Your task to perform on an android device: Open eBay Image 0: 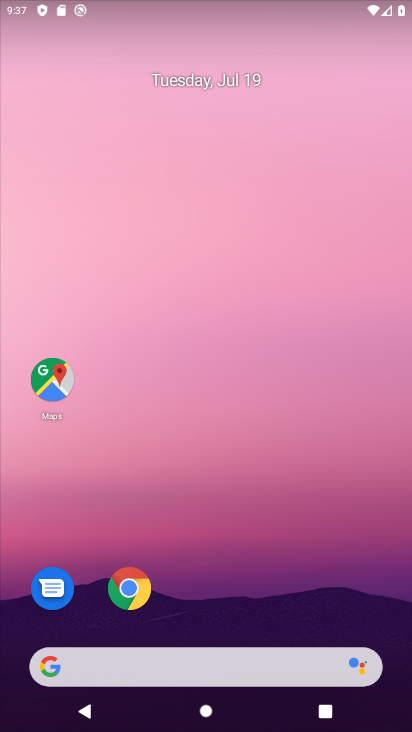
Step 0: drag from (213, 212) to (256, 65)
Your task to perform on an android device: Open eBay Image 1: 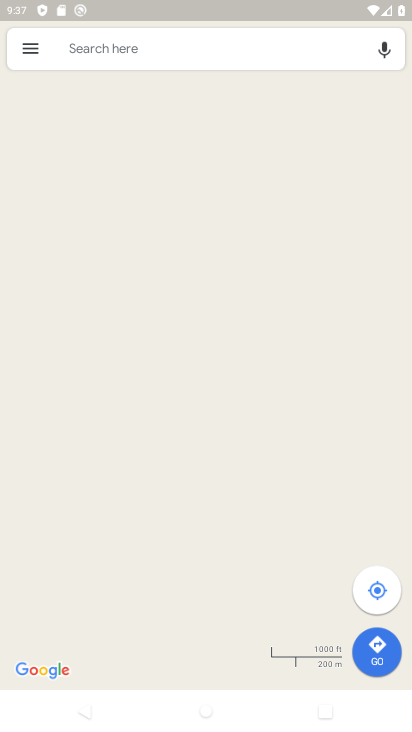
Step 1: press back button
Your task to perform on an android device: Open eBay Image 2: 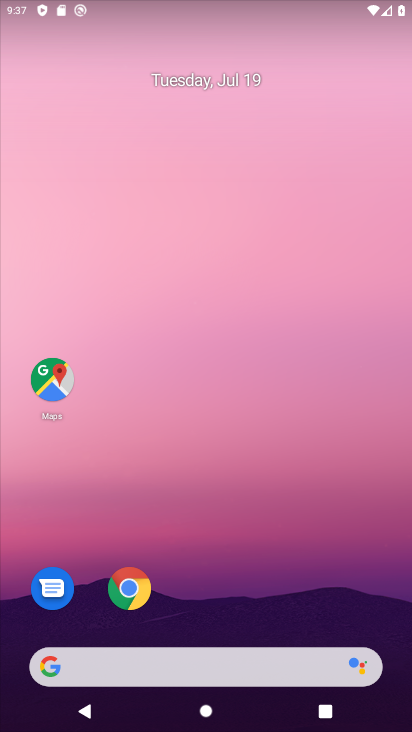
Step 2: drag from (231, 687) to (220, 331)
Your task to perform on an android device: Open eBay Image 3: 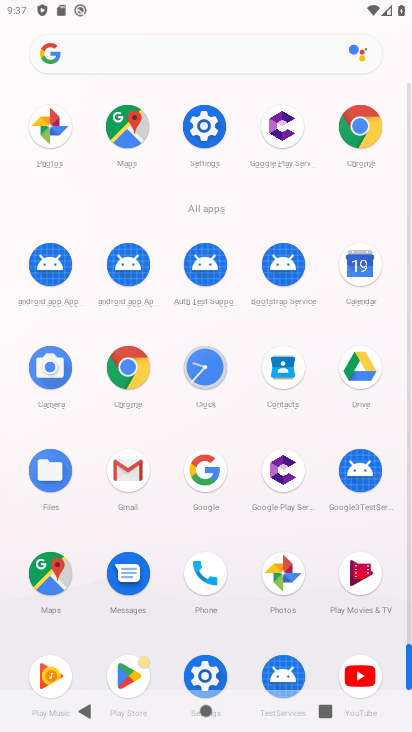
Step 3: click (368, 119)
Your task to perform on an android device: Open eBay Image 4: 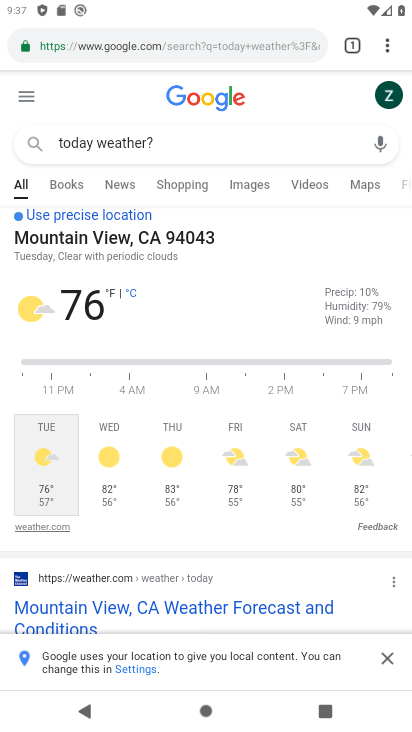
Step 4: drag from (381, 45) to (216, 106)
Your task to perform on an android device: Open eBay Image 5: 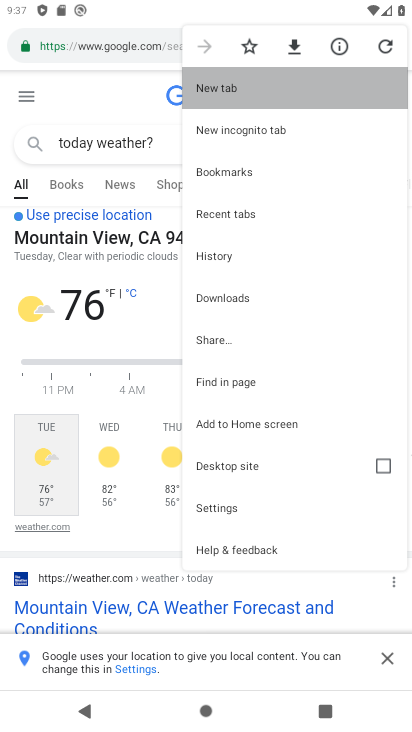
Step 5: click (219, 101)
Your task to perform on an android device: Open eBay Image 6: 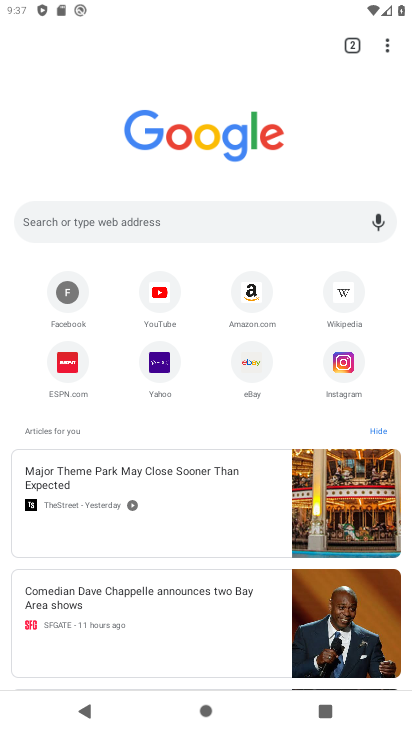
Step 6: click (244, 359)
Your task to perform on an android device: Open eBay Image 7: 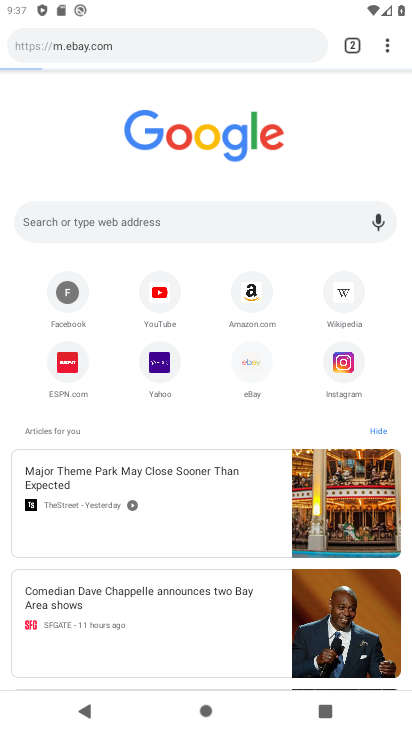
Step 7: click (248, 358)
Your task to perform on an android device: Open eBay Image 8: 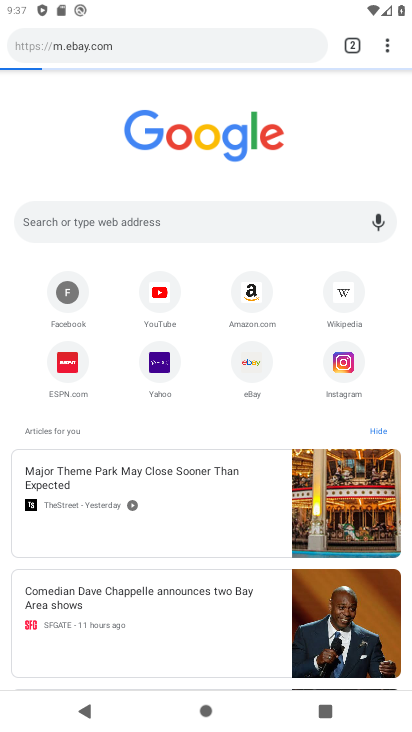
Step 8: click (248, 358)
Your task to perform on an android device: Open eBay Image 9: 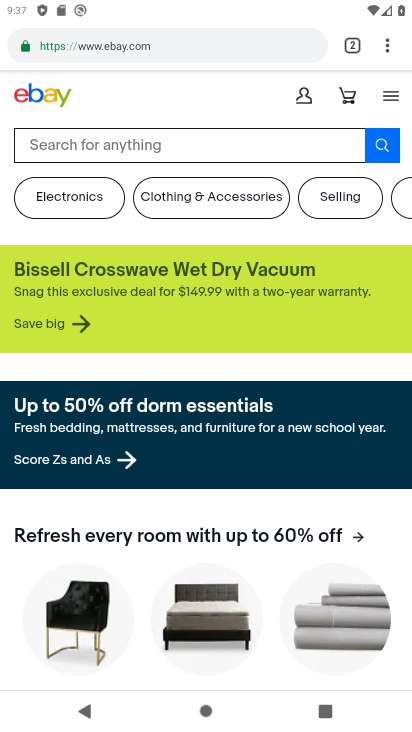
Step 9: task complete